Your task to perform on an android device: turn off data saver in the chrome app Image 0: 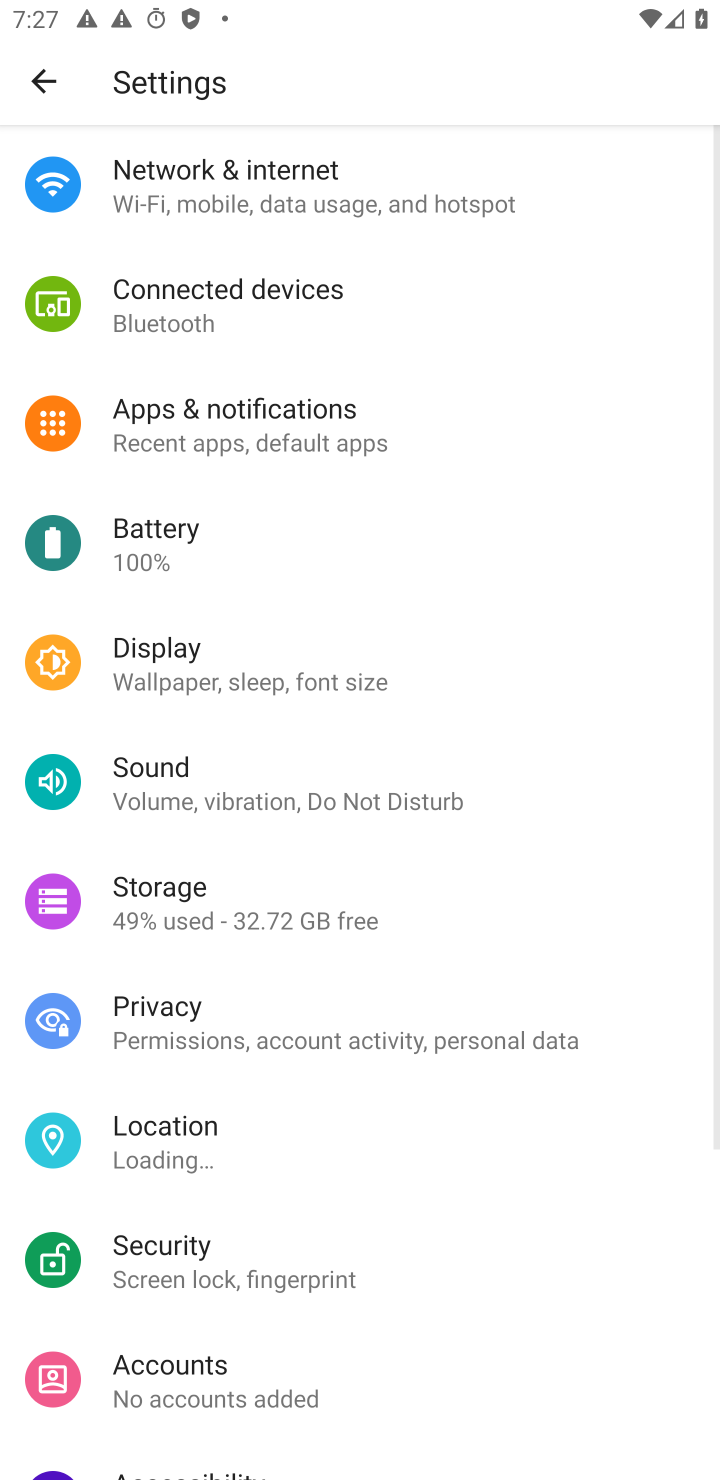
Step 0: press home button
Your task to perform on an android device: turn off data saver in the chrome app Image 1: 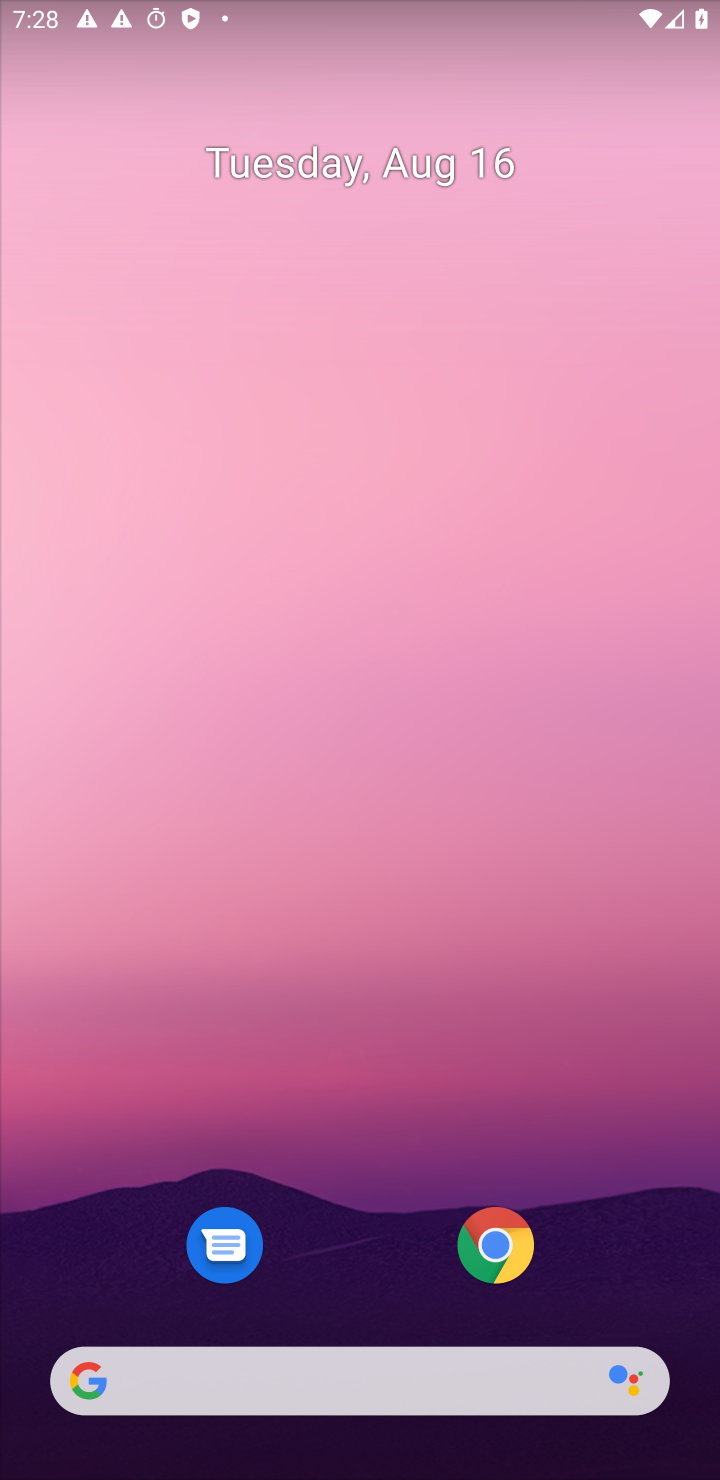
Step 1: click (515, 1248)
Your task to perform on an android device: turn off data saver in the chrome app Image 2: 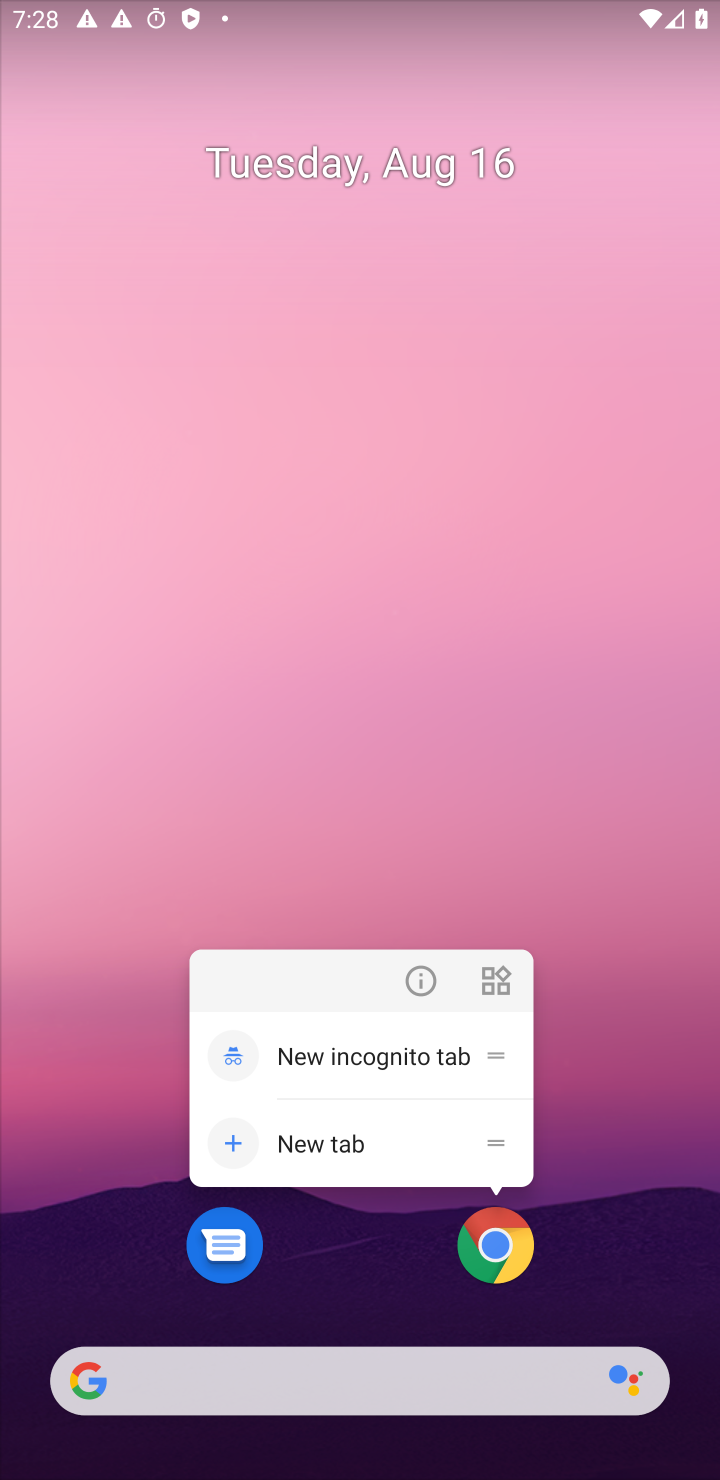
Step 2: click (515, 1248)
Your task to perform on an android device: turn off data saver in the chrome app Image 3: 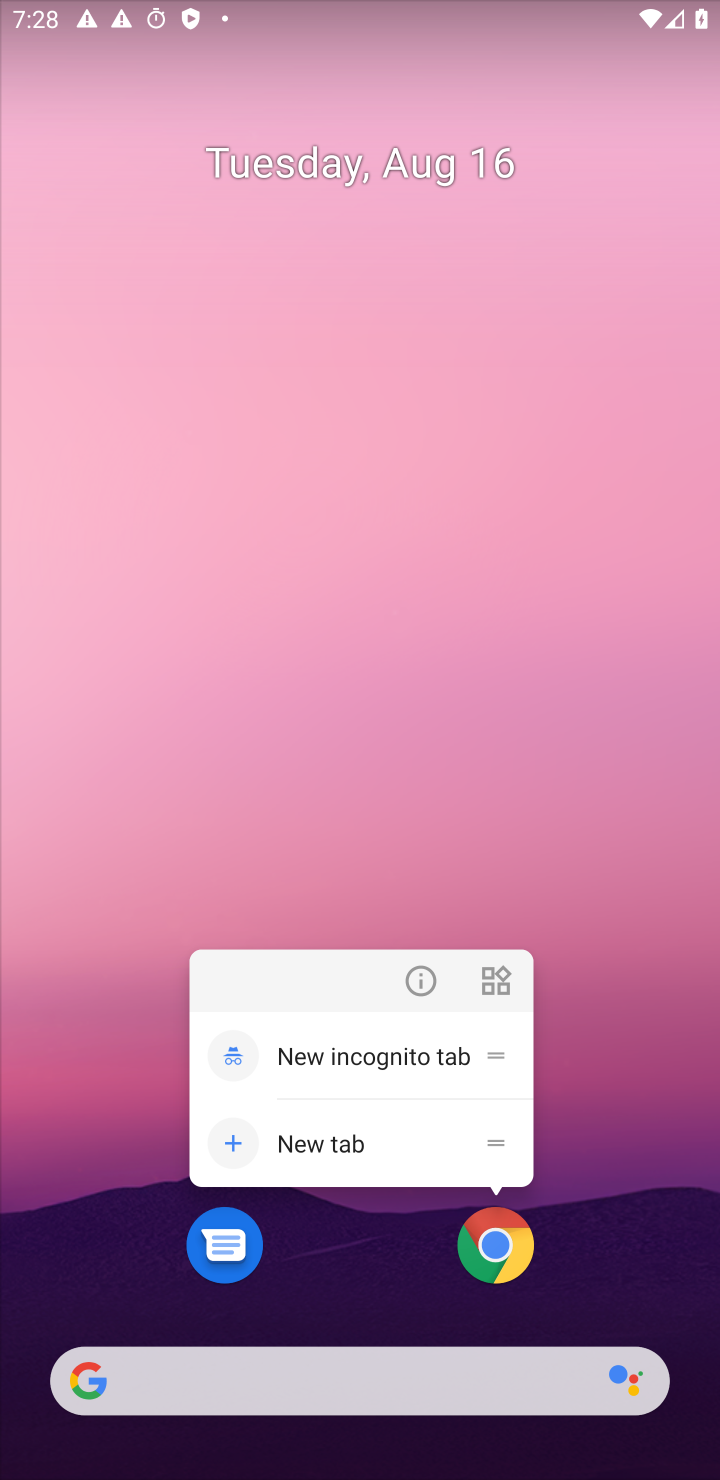
Step 3: click (499, 1261)
Your task to perform on an android device: turn off data saver in the chrome app Image 4: 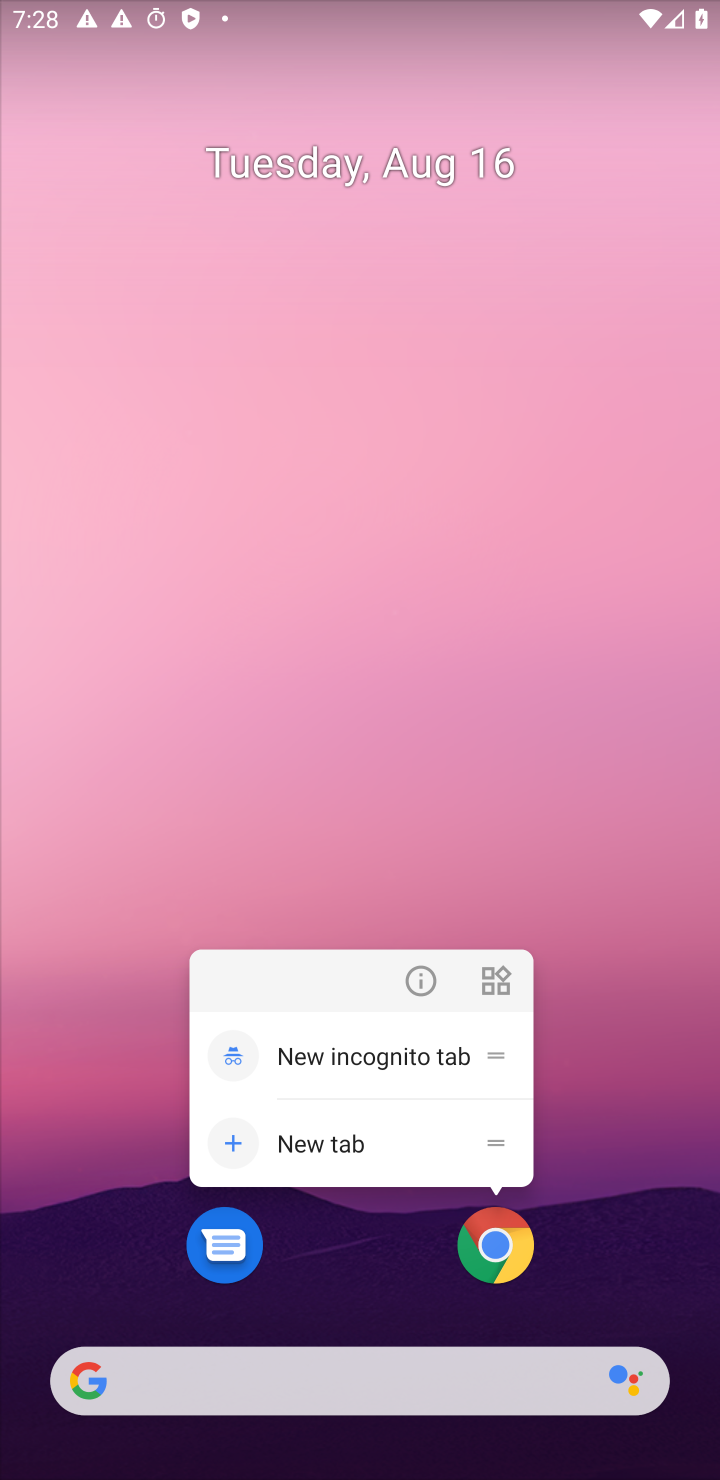
Step 4: click (497, 1255)
Your task to perform on an android device: turn off data saver in the chrome app Image 5: 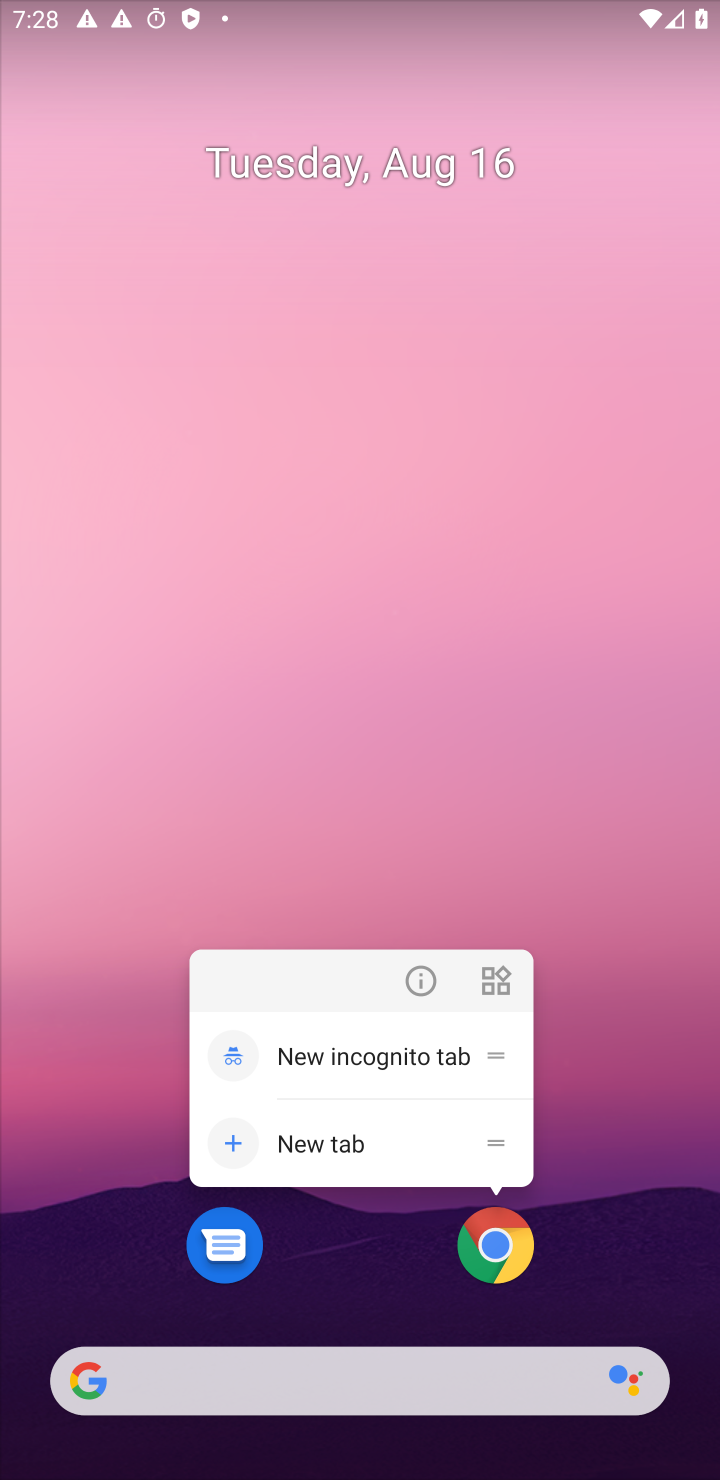
Step 5: click (491, 1257)
Your task to perform on an android device: turn off data saver in the chrome app Image 6: 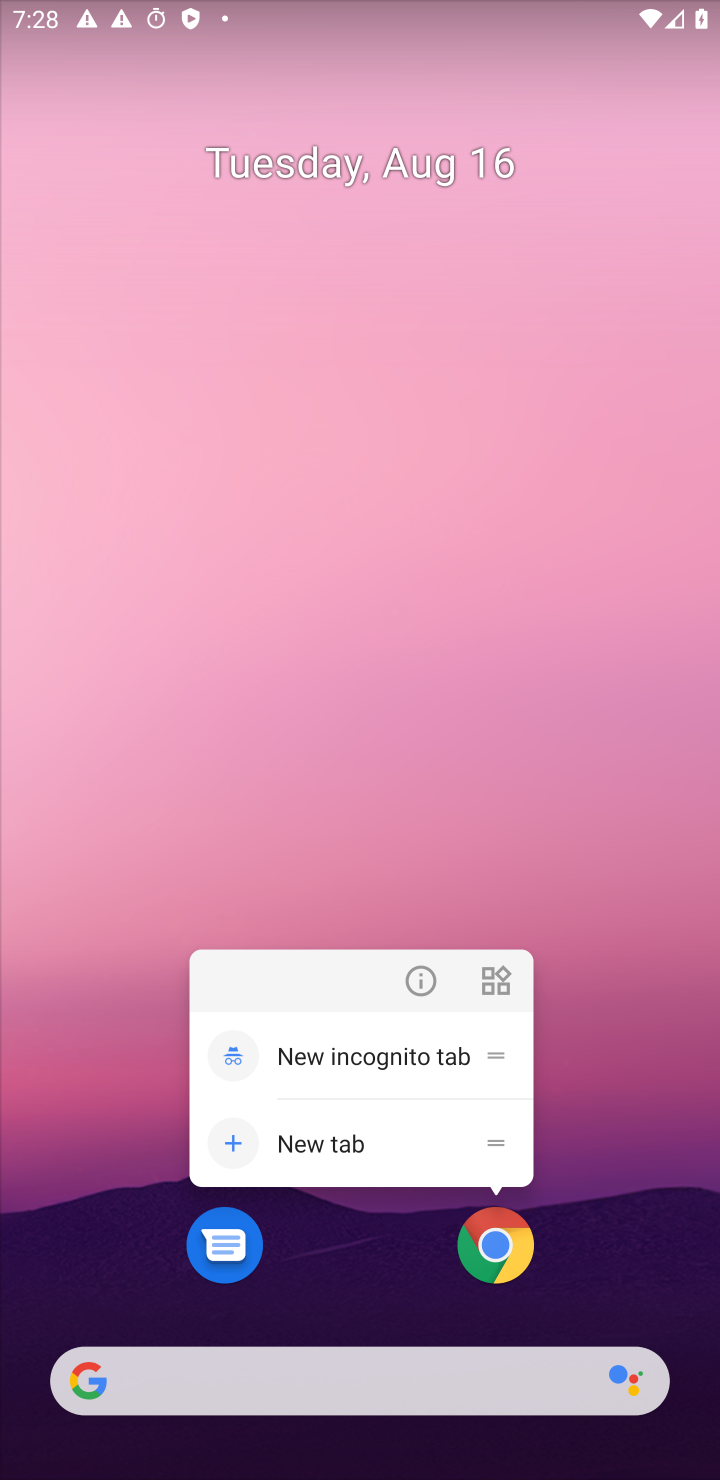
Step 6: click (491, 1257)
Your task to perform on an android device: turn off data saver in the chrome app Image 7: 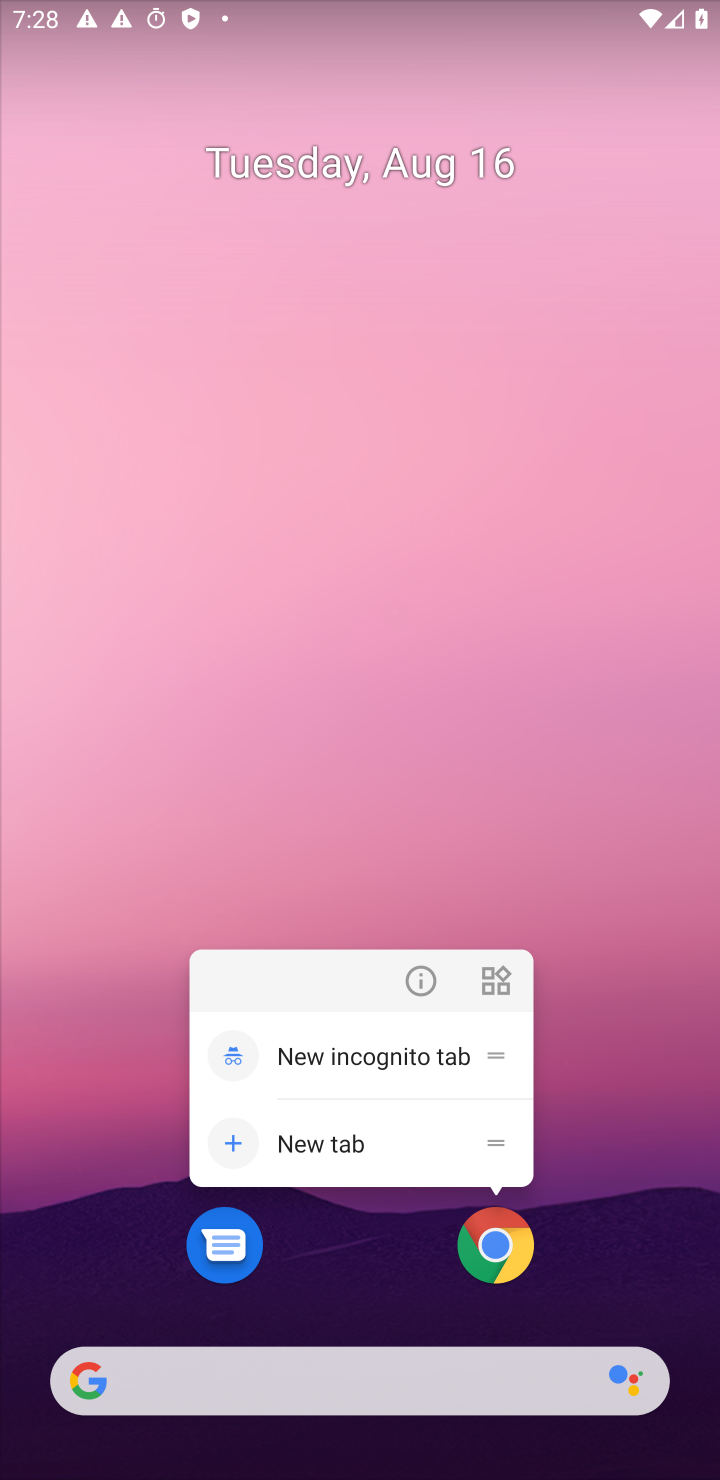
Step 7: click (509, 1266)
Your task to perform on an android device: turn off data saver in the chrome app Image 8: 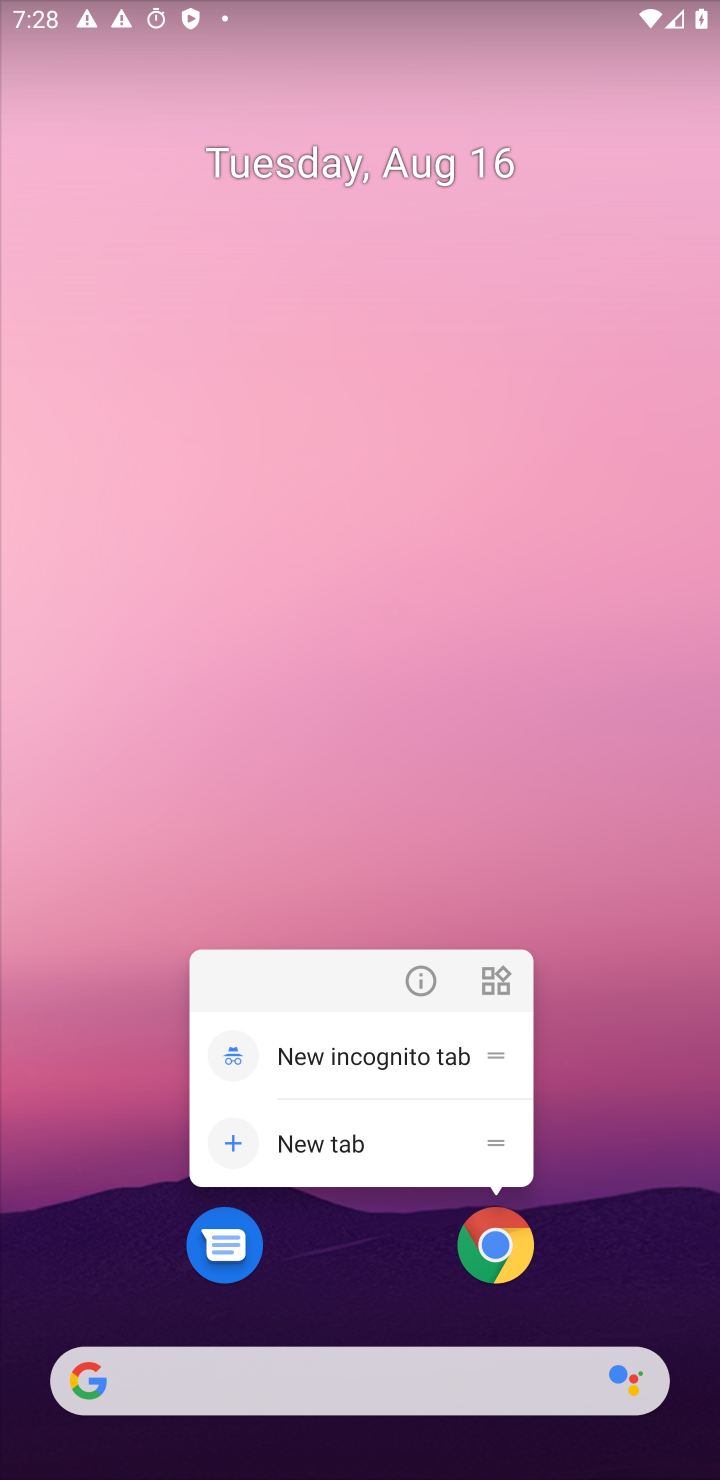
Step 8: click (399, 438)
Your task to perform on an android device: turn off data saver in the chrome app Image 9: 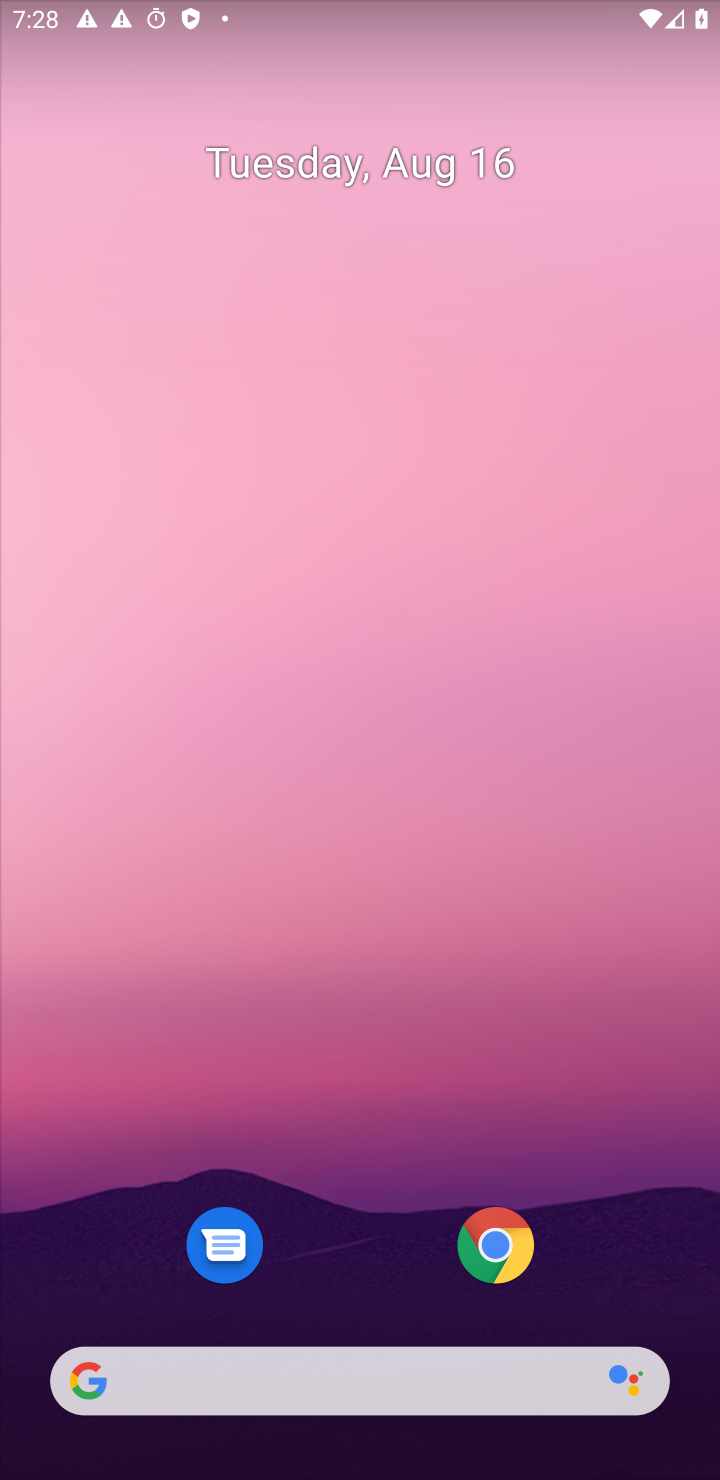
Step 9: drag from (412, 1088) to (430, 35)
Your task to perform on an android device: turn off data saver in the chrome app Image 10: 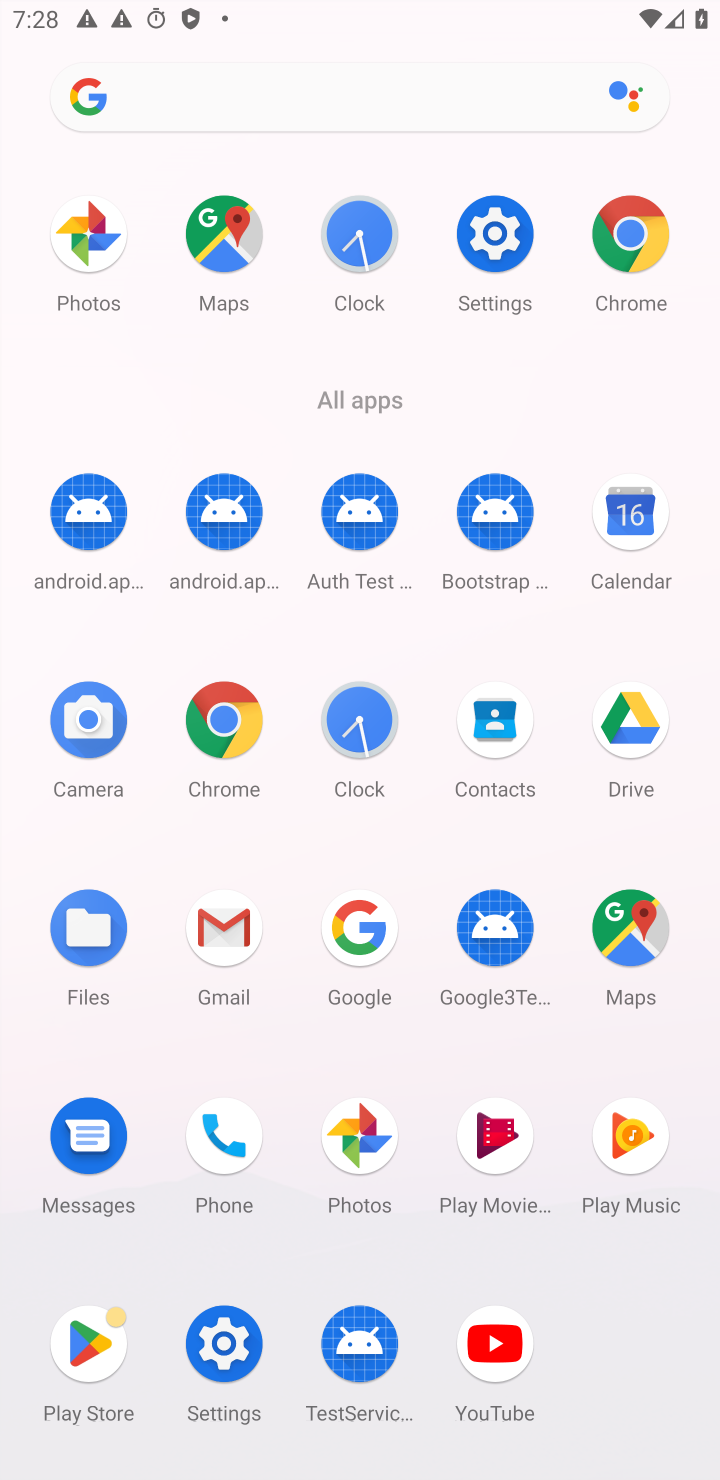
Step 10: click (616, 245)
Your task to perform on an android device: turn off data saver in the chrome app Image 11: 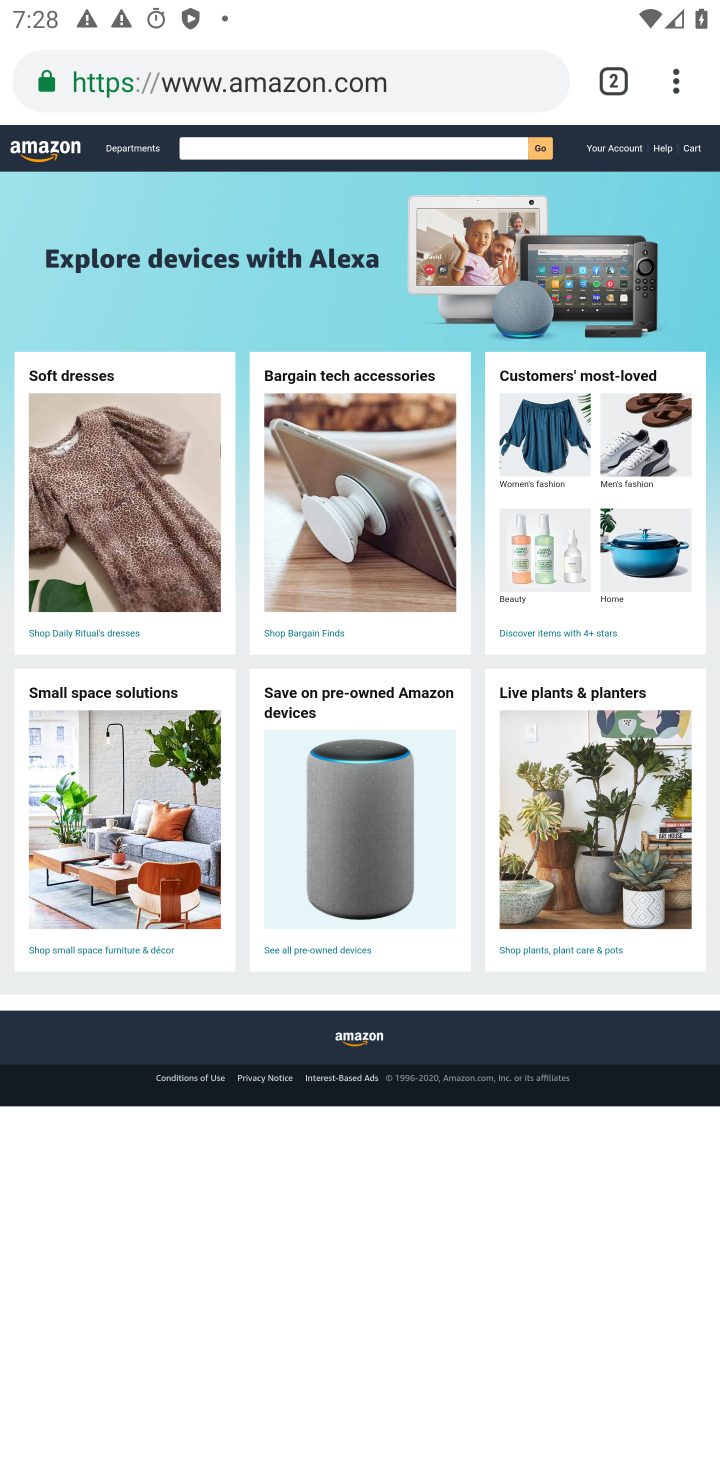
Step 11: click (681, 86)
Your task to perform on an android device: turn off data saver in the chrome app Image 12: 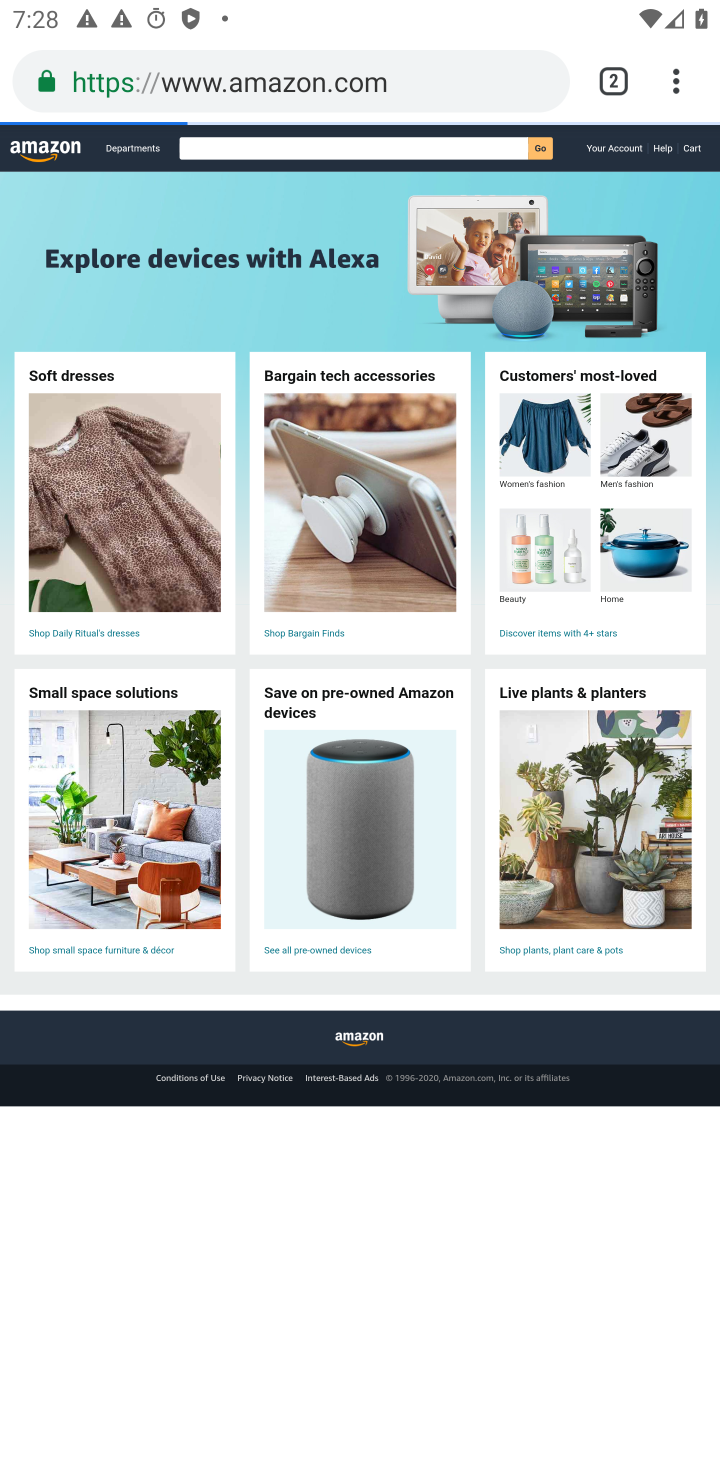
Step 12: drag from (681, 79) to (383, 972)
Your task to perform on an android device: turn off data saver in the chrome app Image 13: 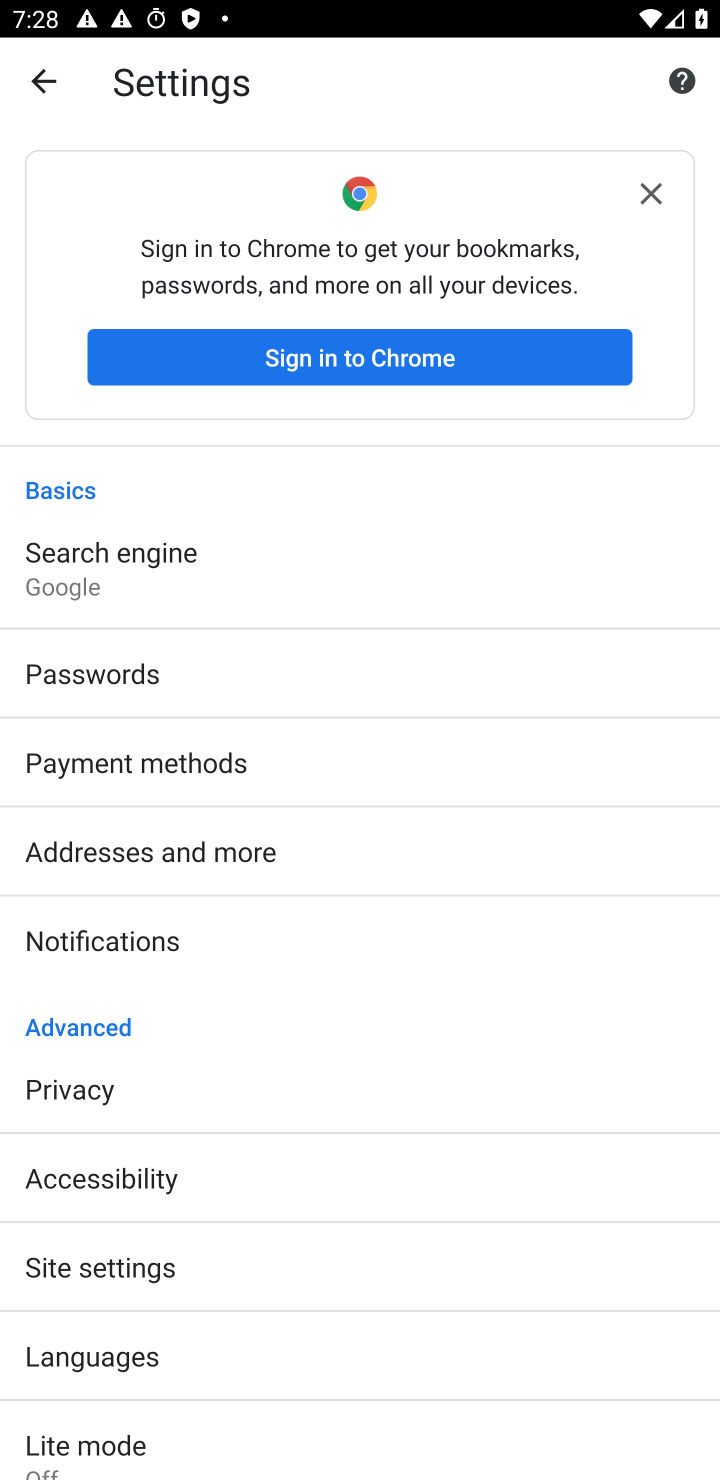
Step 13: drag from (329, 1019) to (270, 298)
Your task to perform on an android device: turn off data saver in the chrome app Image 14: 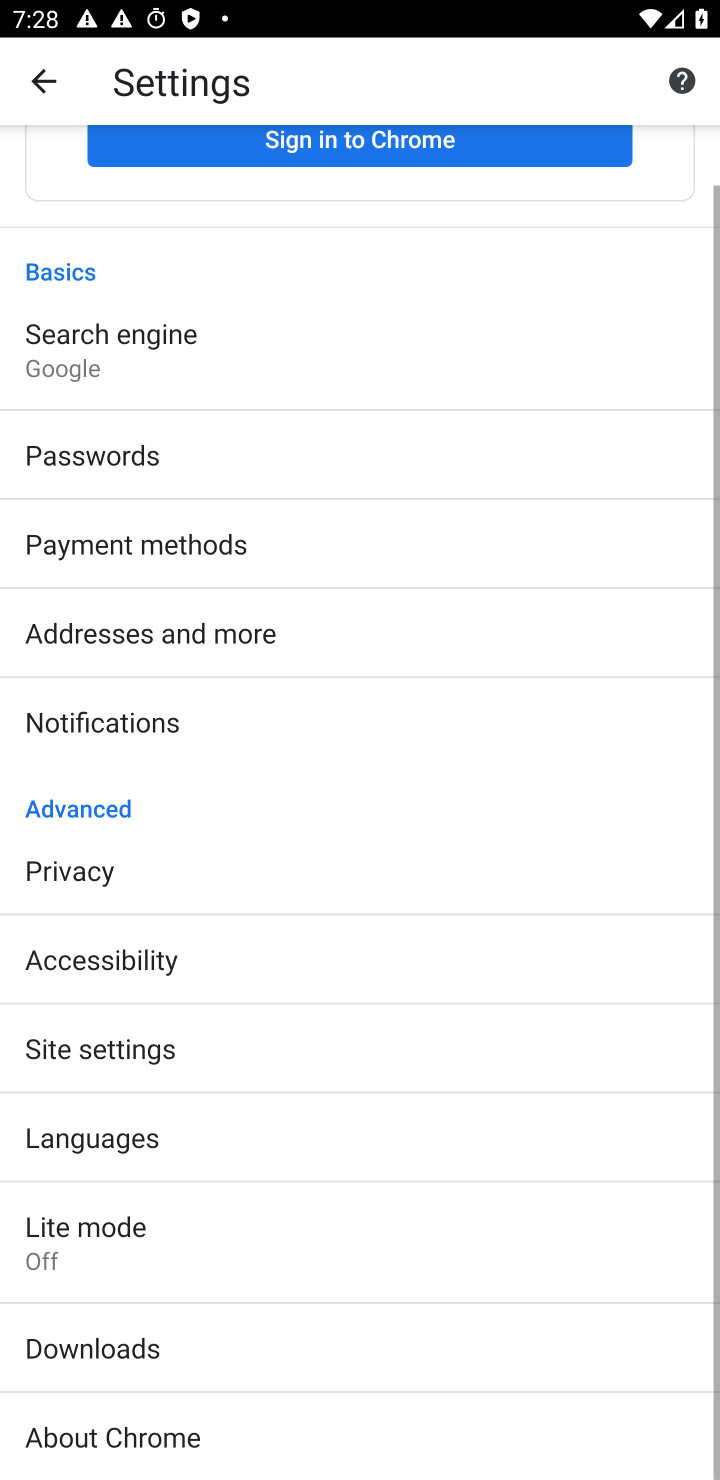
Step 14: click (126, 1235)
Your task to perform on an android device: turn off data saver in the chrome app Image 15: 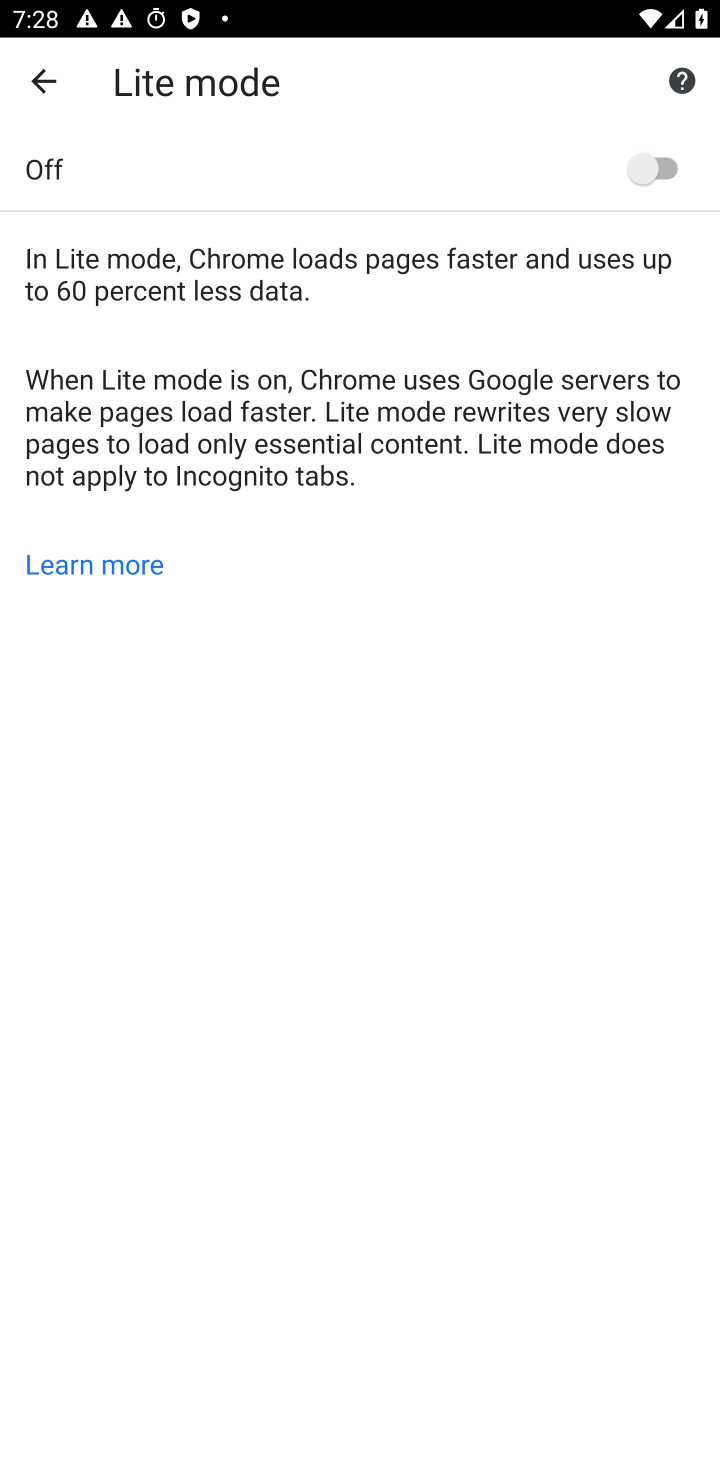
Step 15: task complete